Your task to perform on an android device: change your default location settings in chrome Image 0: 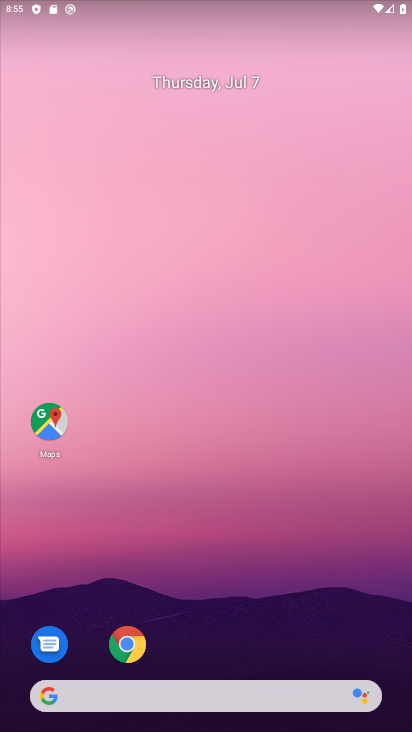
Step 0: drag from (267, 527) to (304, 41)
Your task to perform on an android device: change your default location settings in chrome Image 1: 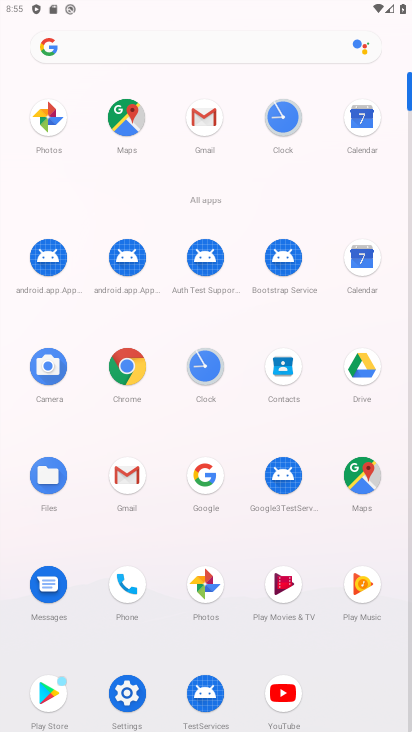
Step 1: click (129, 367)
Your task to perform on an android device: change your default location settings in chrome Image 2: 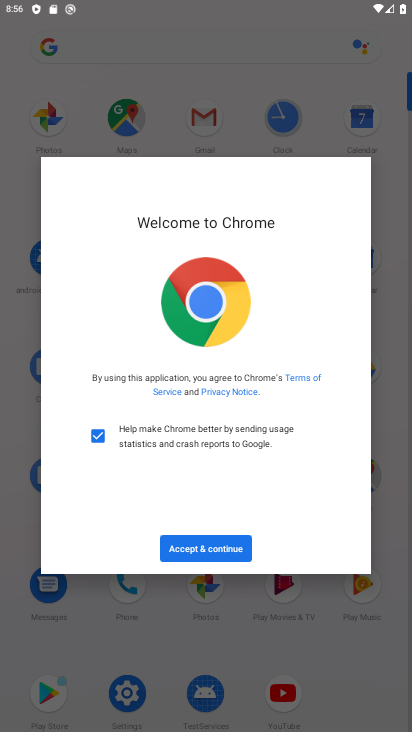
Step 2: click (223, 549)
Your task to perform on an android device: change your default location settings in chrome Image 3: 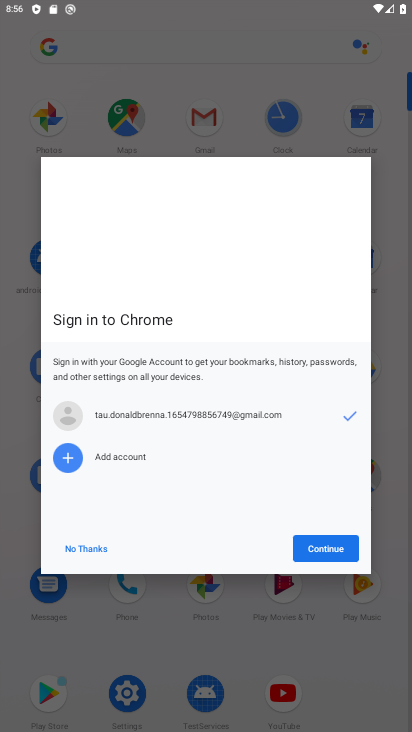
Step 3: click (340, 548)
Your task to perform on an android device: change your default location settings in chrome Image 4: 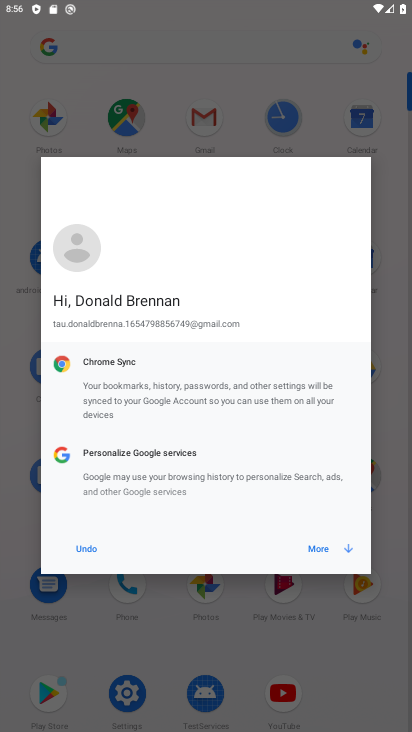
Step 4: click (327, 552)
Your task to perform on an android device: change your default location settings in chrome Image 5: 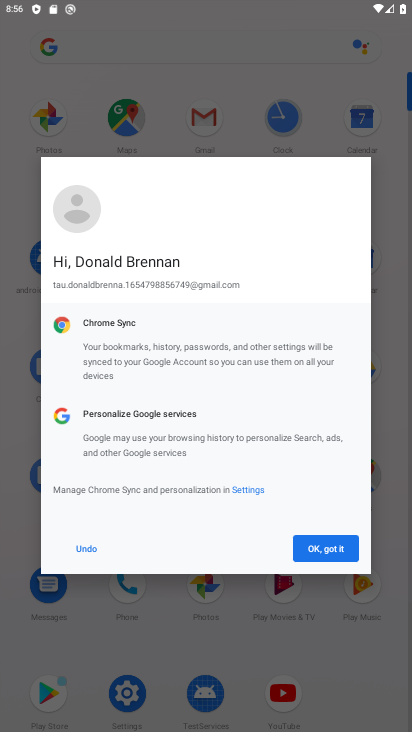
Step 5: click (327, 552)
Your task to perform on an android device: change your default location settings in chrome Image 6: 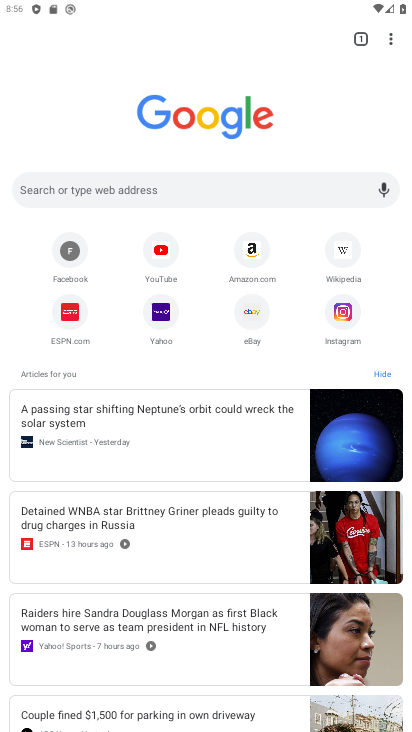
Step 6: click (388, 36)
Your task to perform on an android device: change your default location settings in chrome Image 7: 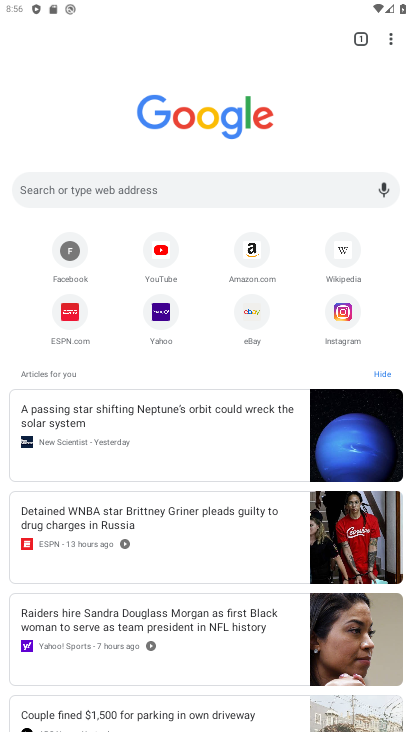
Step 7: click (388, 36)
Your task to perform on an android device: change your default location settings in chrome Image 8: 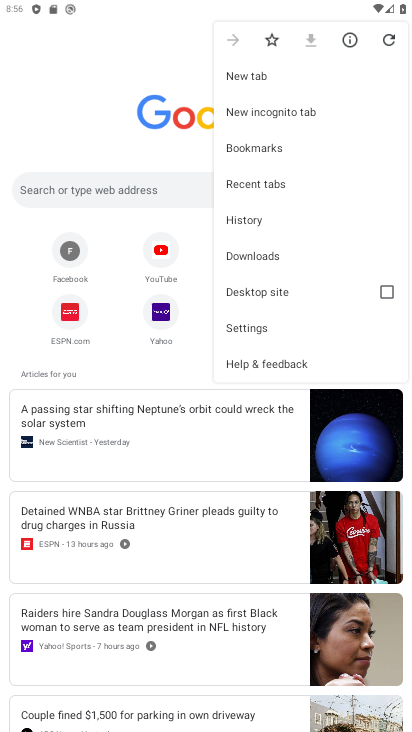
Step 8: click (259, 330)
Your task to perform on an android device: change your default location settings in chrome Image 9: 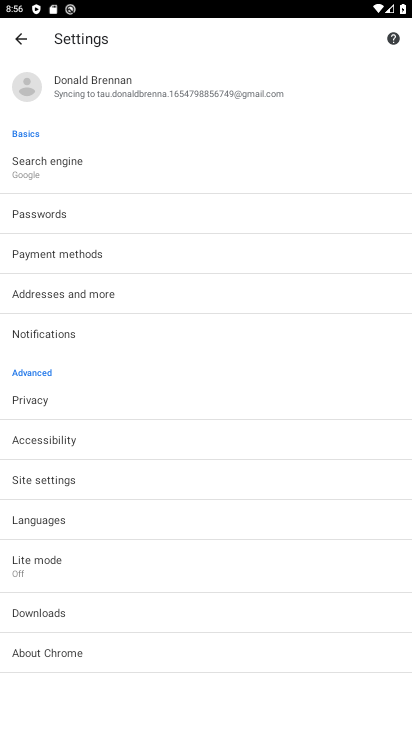
Step 9: click (64, 475)
Your task to perform on an android device: change your default location settings in chrome Image 10: 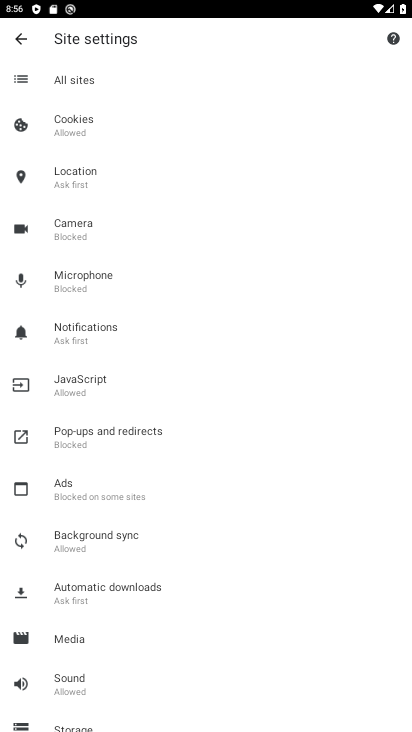
Step 10: click (91, 172)
Your task to perform on an android device: change your default location settings in chrome Image 11: 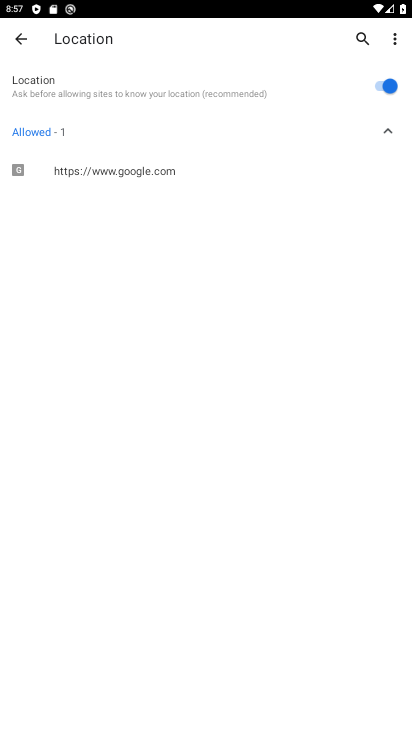
Step 11: click (390, 72)
Your task to perform on an android device: change your default location settings in chrome Image 12: 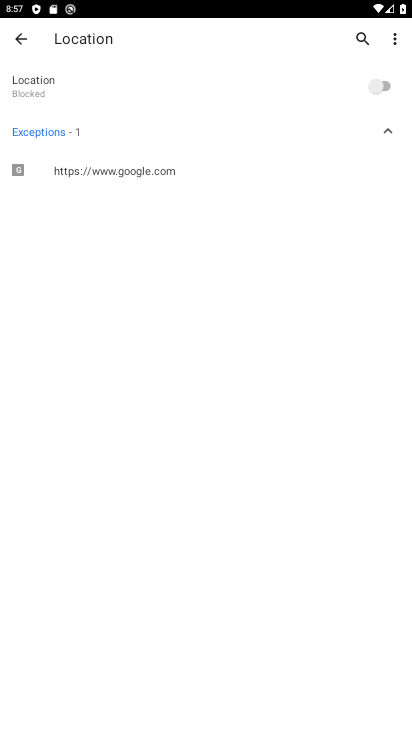
Step 12: task complete